Your task to perform on an android device: When is my next meeting? Image 0: 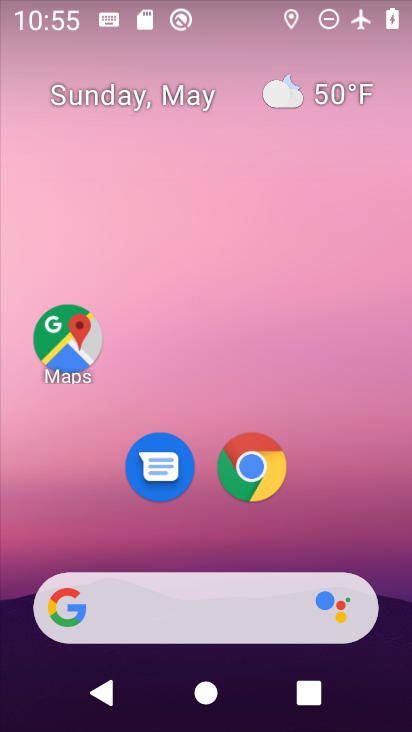
Step 0: drag from (204, 417) to (210, 77)
Your task to perform on an android device: When is my next meeting? Image 1: 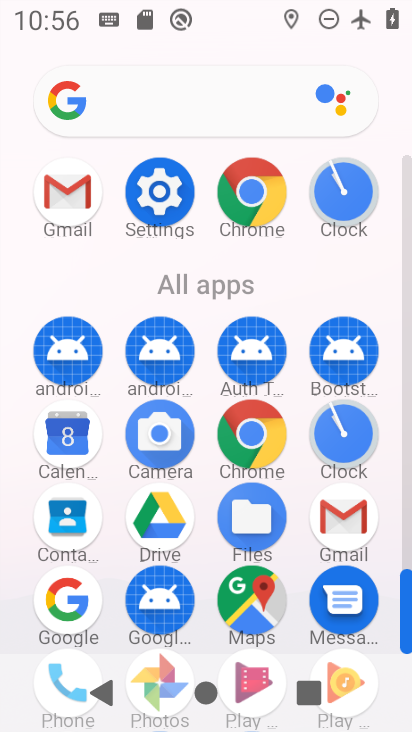
Step 1: click (73, 441)
Your task to perform on an android device: When is my next meeting? Image 2: 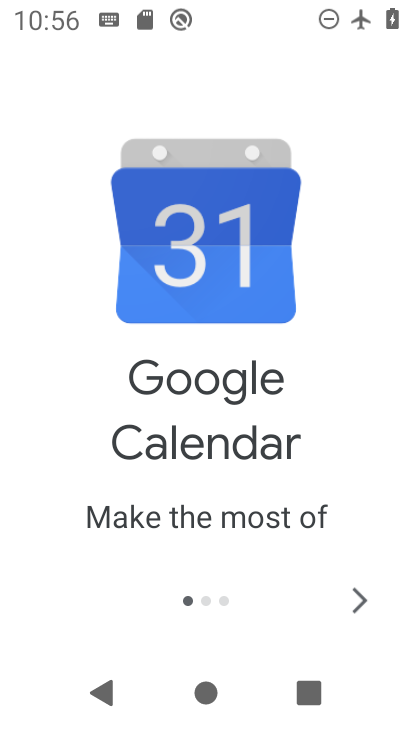
Step 2: click (362, 604)
Your task to perform on an android device: When is my next meeting? Image 3: 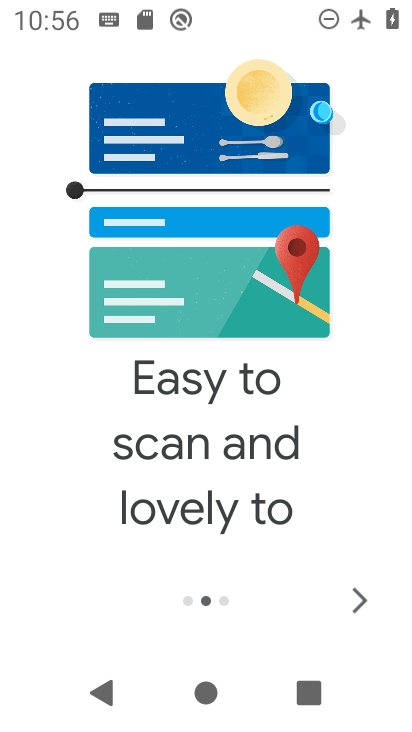
Step 3: click (358, 605)
Your task to perform on an android device: When is my next meeting? Image 4: 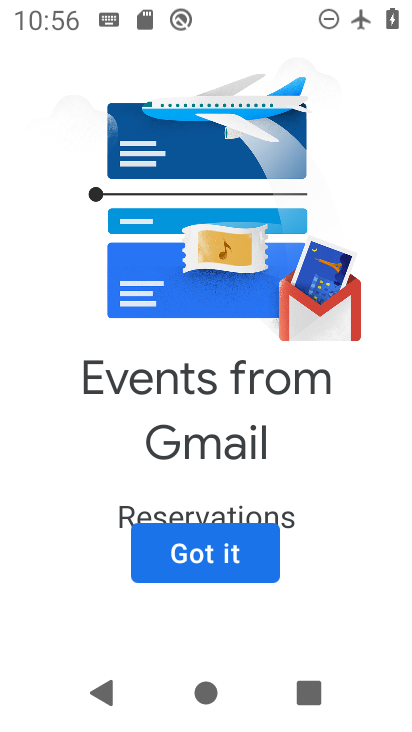
Step 4: click (358, 605)
Your task to perform on an android device: When is my next meeting? Image 5: 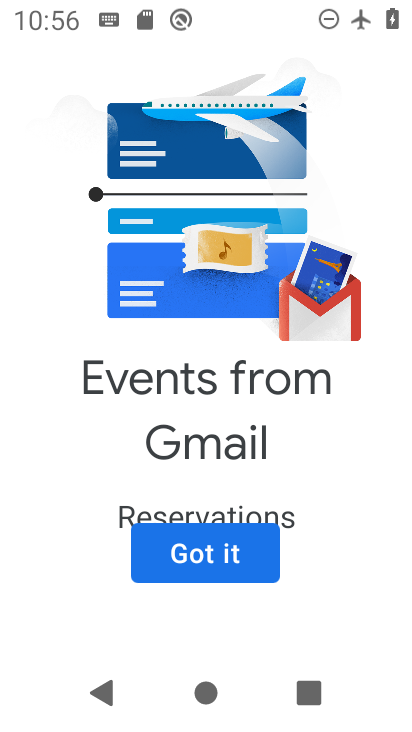
Step 5: click (220, 549)
Your task to perform on an android device: When is my next meeting? Image 6: 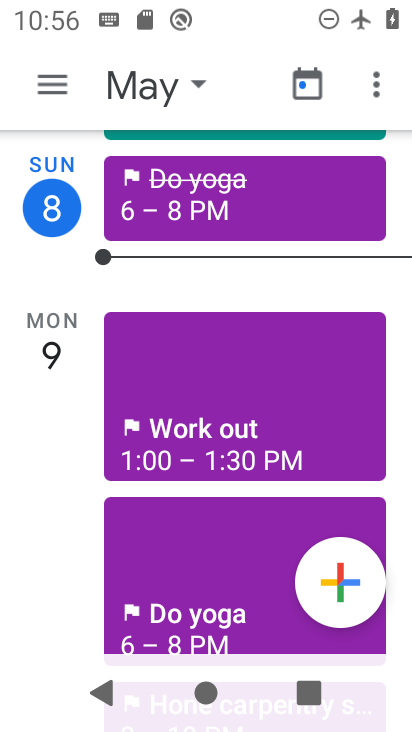
Step 6: drag from (251, 543) to (278, 222)
Your task to perform on an android device: When is my next meeting? Image 7: 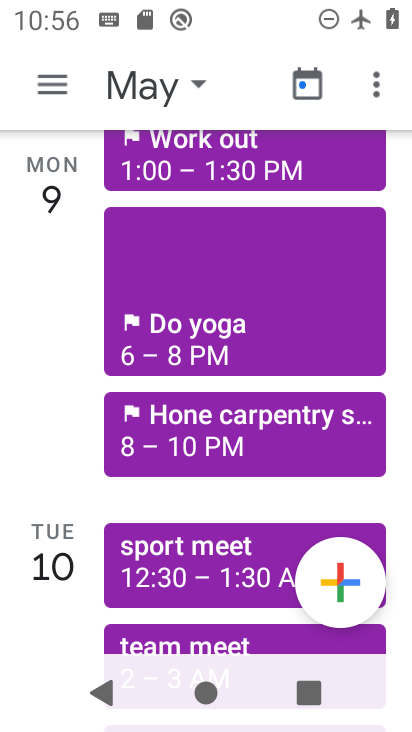
Step 7: click (246, 318)
Your task to perform on an android device: When is my next meeting? Image 8: 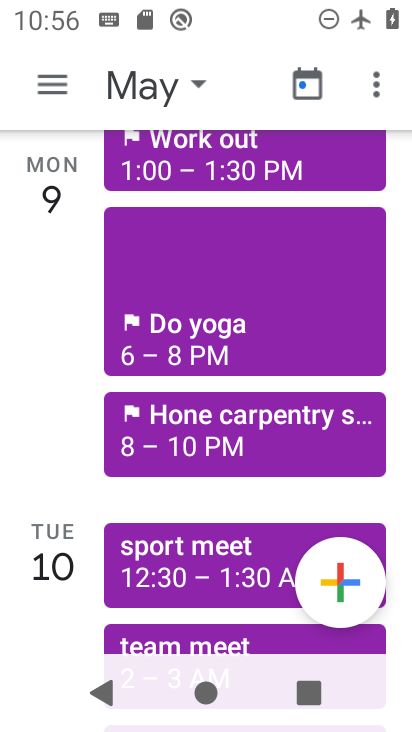
Step 8: click (211, 598)
Your task to perform on an android device: When is my next meeting? Image 9: 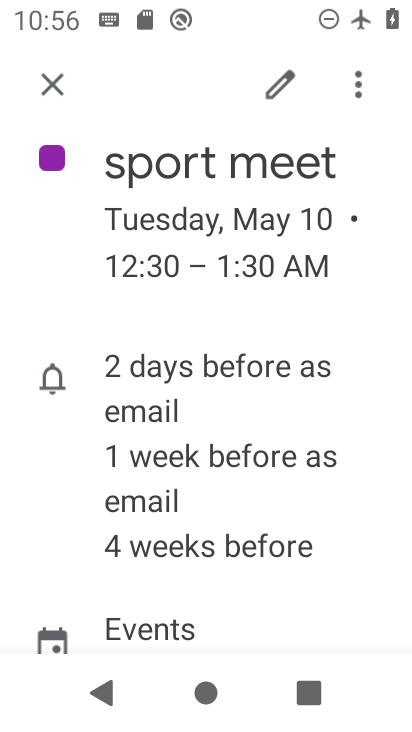
Step 9: task complete